Your task to perform on an android device: Empty the shopping cart on ebay.com. Add "logitech g502" to the cart on ebay.com Image 0: 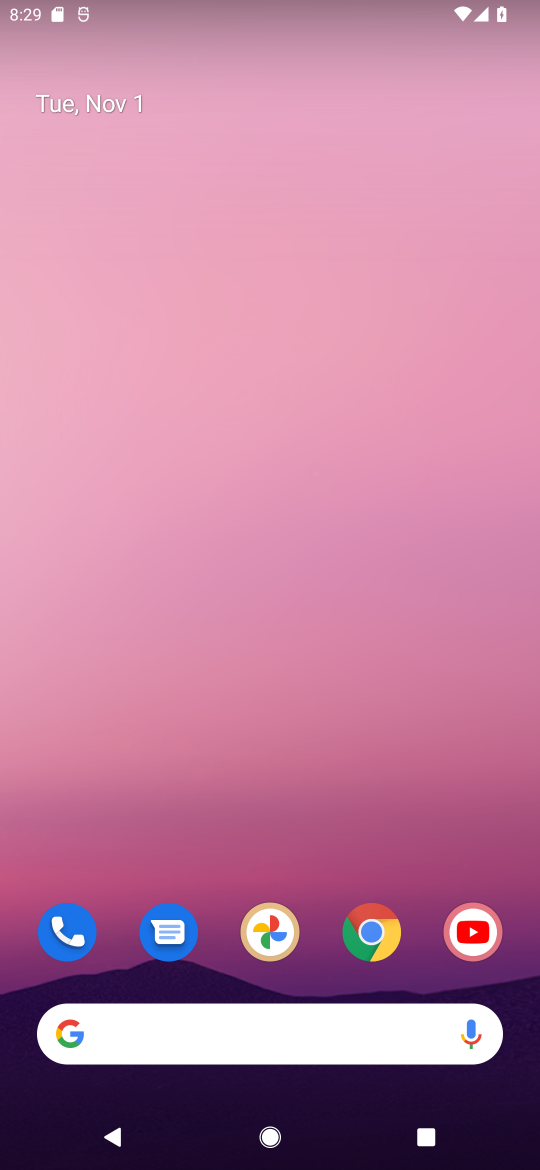
Step 0: click (364, 938)
Your task to perform on an android device: Empty the shopping cart on ebay.com. Add "logitech g502" to the cart on ebay.com Image 1: 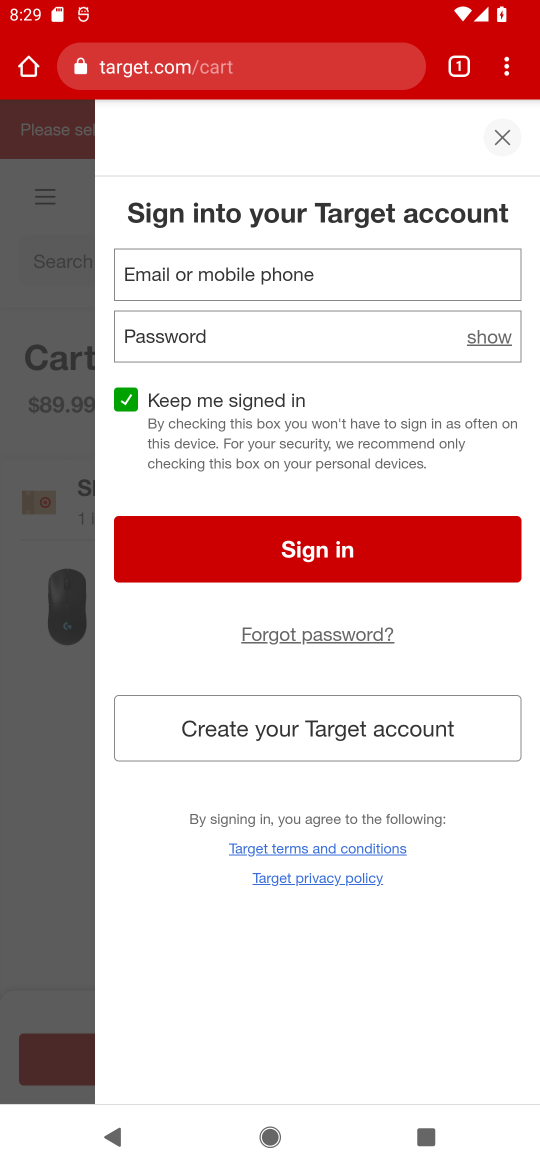
Step 1: click (302, 74)
Your task to perform on an android device: Empty the shopping cart on ebay.com. Add "logitech g502" to the cart on ebay.com Image 2: 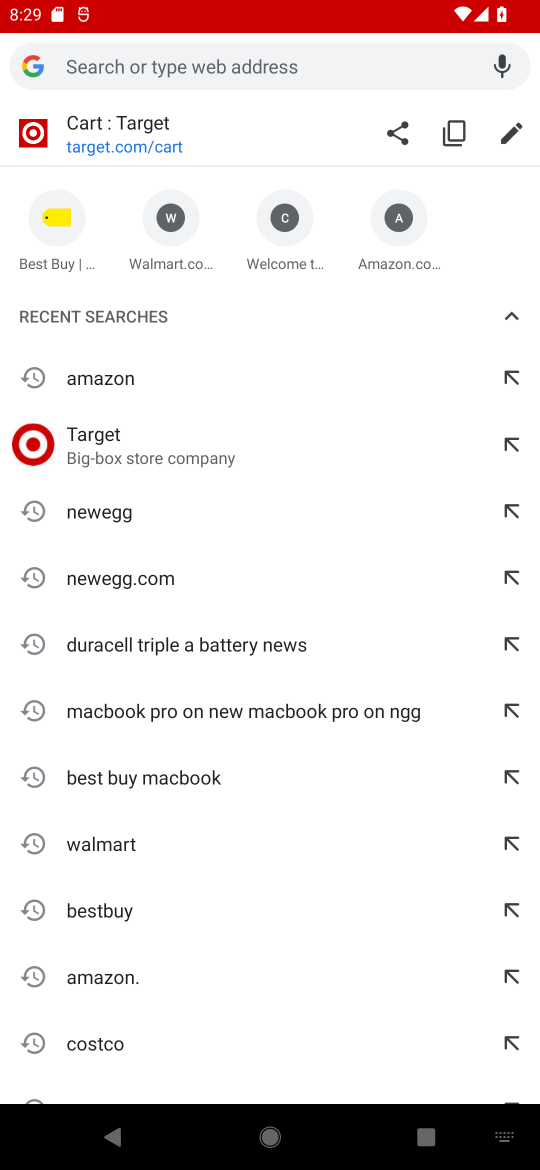
Step 2: type "ebay.com"
Your task to perform on an android device: Empty the shopping cart on ebay.com. Add "logitech g502" to the cart on ebay.com Image 3: 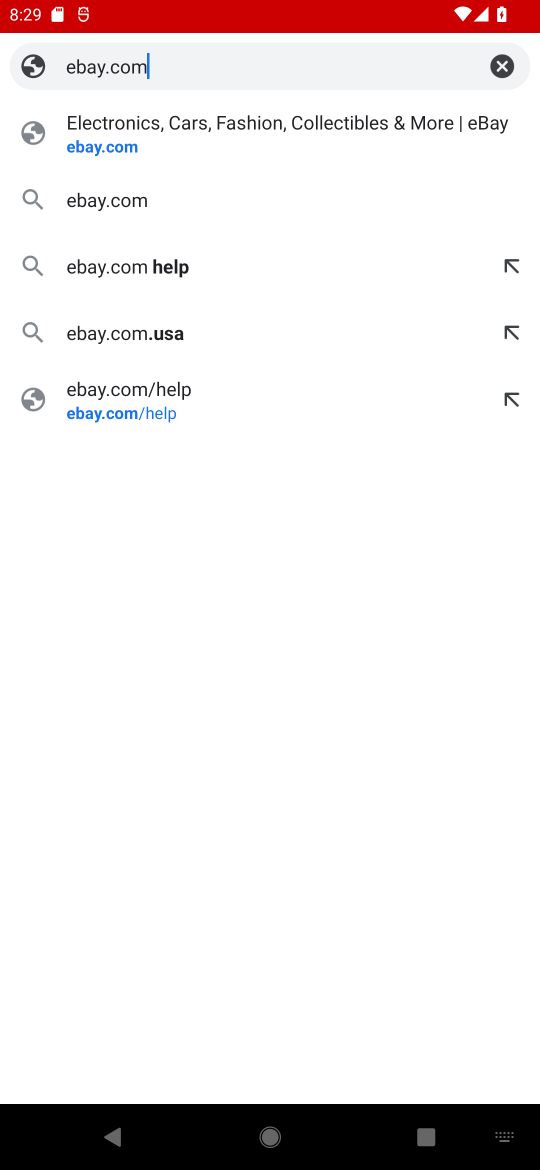
Step 3: click (110, 152)
Your task to perform on an android device: Empty the shopping cart on ebay.com. Add "logitech g502" to the cart on ebay.com Image 4: 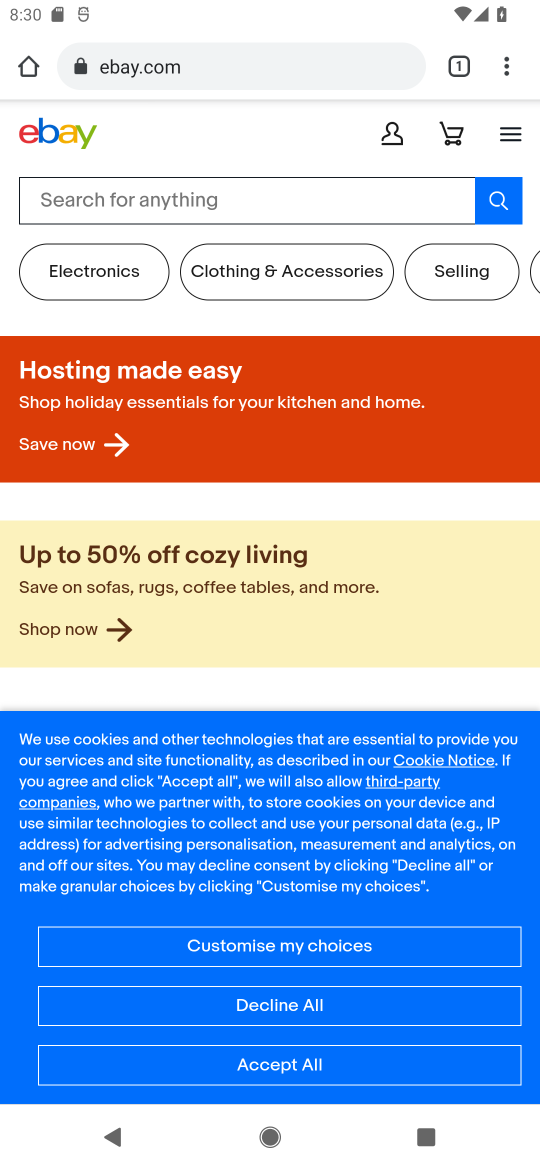
Step 4: click (178, 204)
Your task to perform on an android device: Empty the shopping cart on ebay.com. Add "logitech g502" to the cart on ebay.com Image 5: 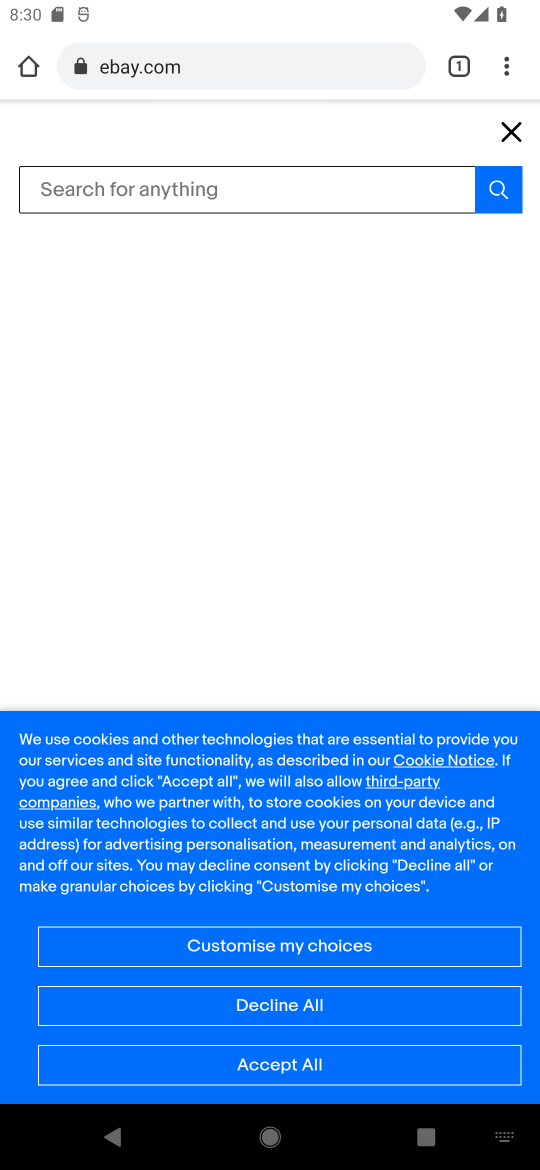
Step 5: type "logitech g502"
Your task to perform on an android device: Empty the shopping cart on ebay.com. Add "logitech g502" to the cart on ebay.com Image 6: 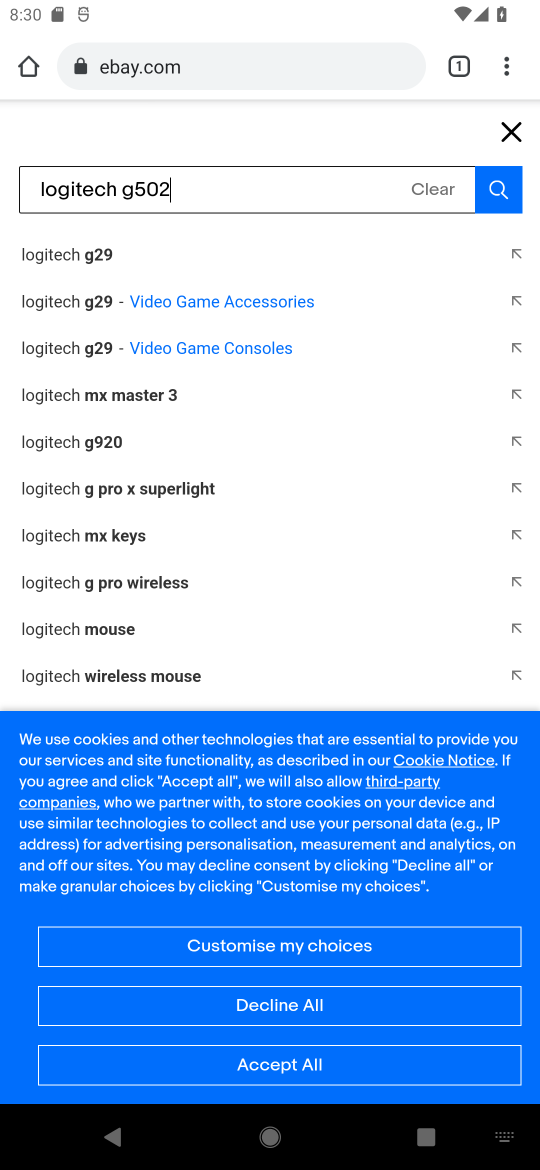
Step 6: click (485, 186)
Your task to perform on an android device: Empty the shopping cart on ebay.com. Add "logitech g502" to the cart on ebay.com Image 7: 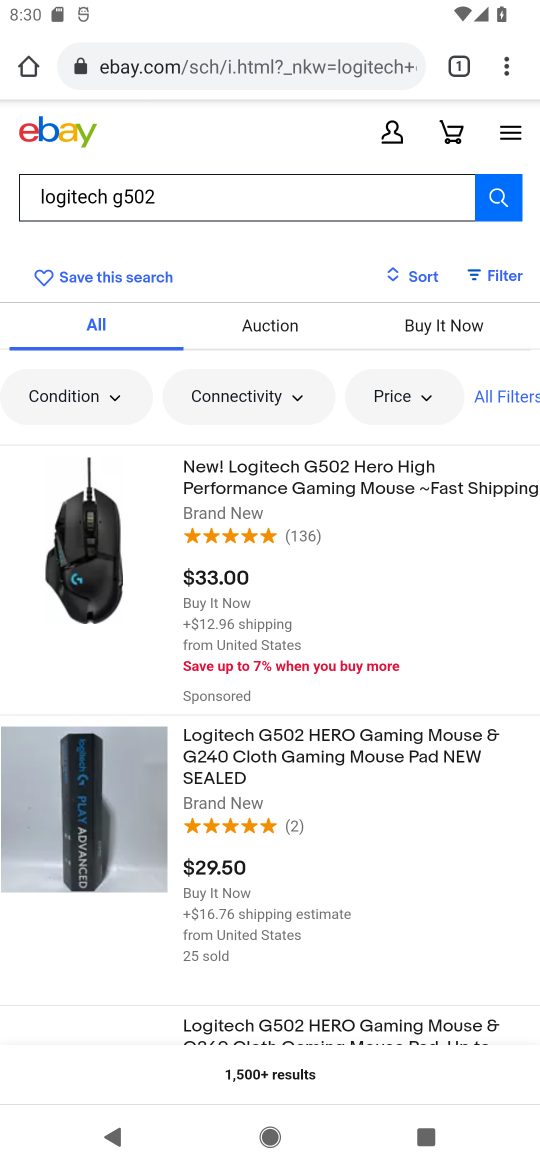
Step 7: click (110, 581)
Your task to perform on an android device: Empty the shopping cart on ebay.com. Add "logitech g502" to the cart on ebay.com Image 8: 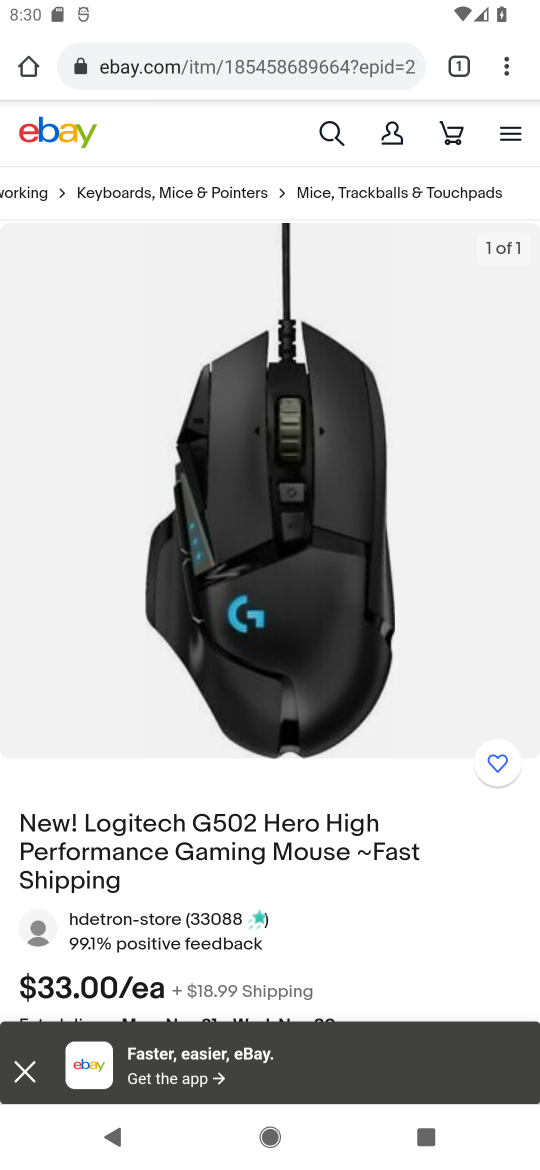
Step 8: drag from (256, 870) to (258, 440)
Your task to perform on an android device: Empty the shopping cart on ebay.com. Add "logitech g502" to the cart on ebay.com Image 9: 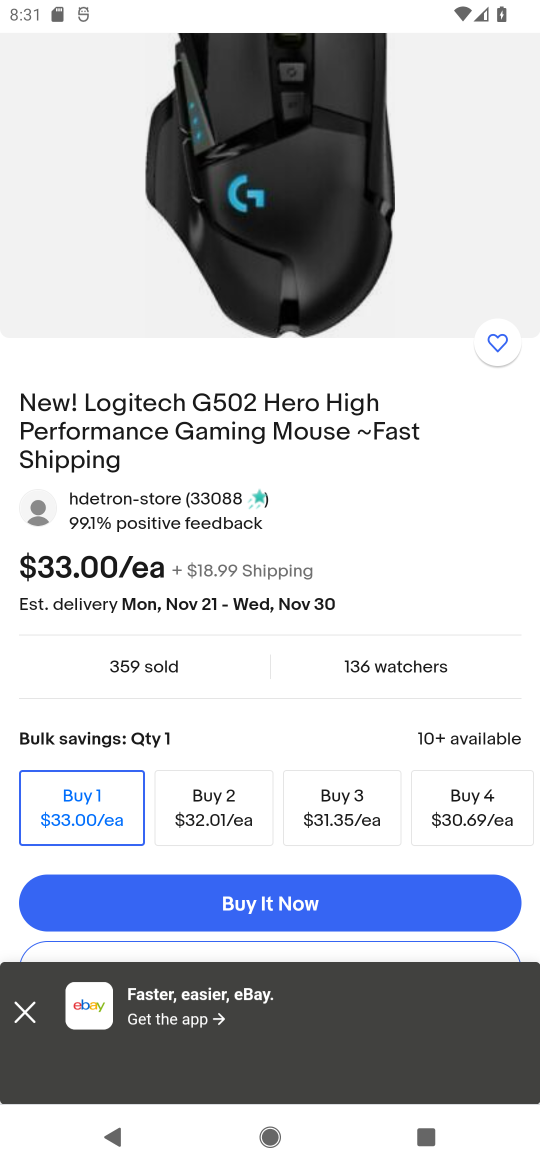
Step 9: drag from (348, 825) to (374, 585)
Your task to perform on an android device: Empty the shopping cart on ebay.com. Add "logitech g502" to the cart on ebay.com Image 10: 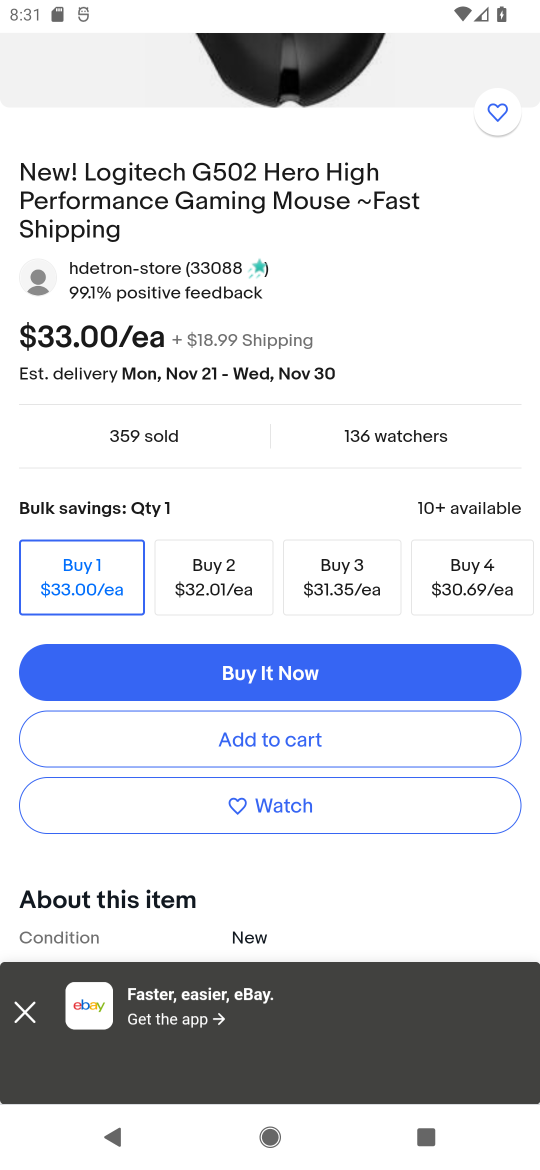
Step 10: click (263, 728)
Your task to perform on an android device: Empty the shopping cart on ebay.com. Add "logitech g502" to the cart on ebay.com Image 11: 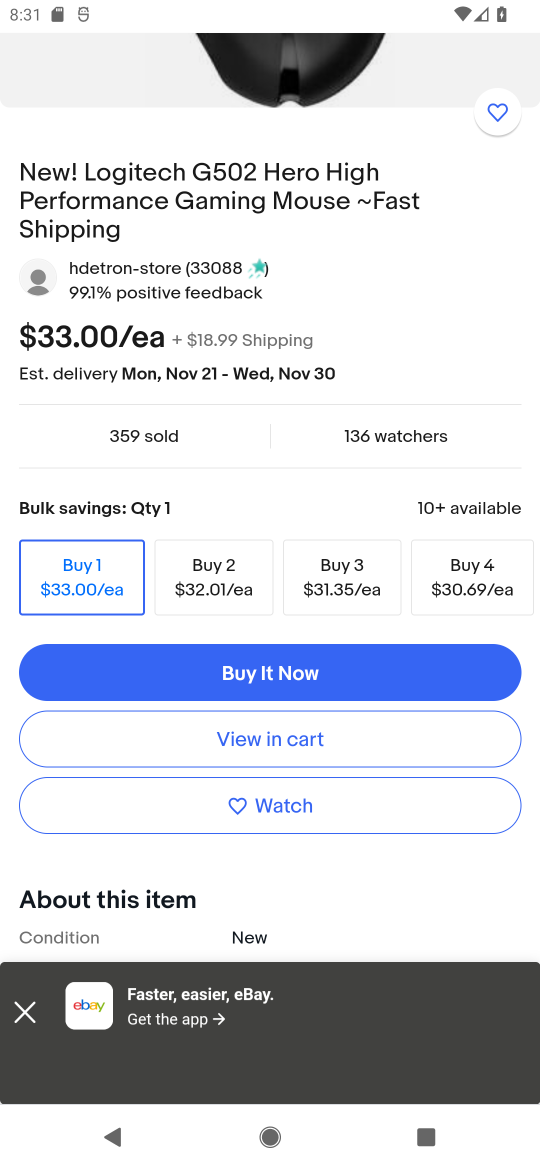
Step 11: click (253, 741)
Your task to perform on an android device: Empty the shopping cart on ebay.com. Add "logitech g502" to the cart on ebay.com Image 12: 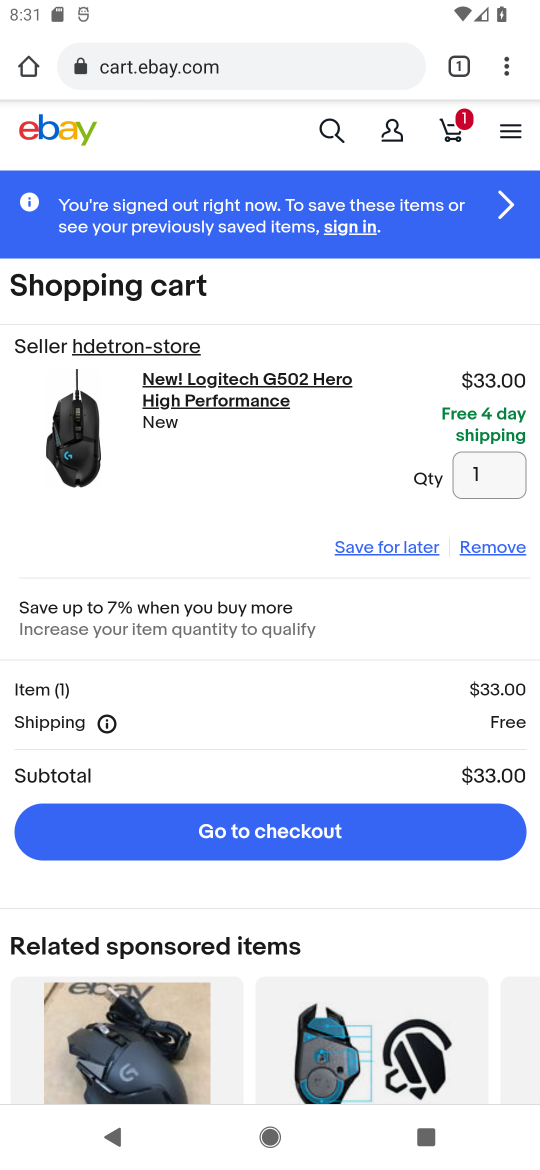
Step 12: task complete